Your task to perform on an android device: open app "Etsy: Buy & Sell Unique Items" Image 0: 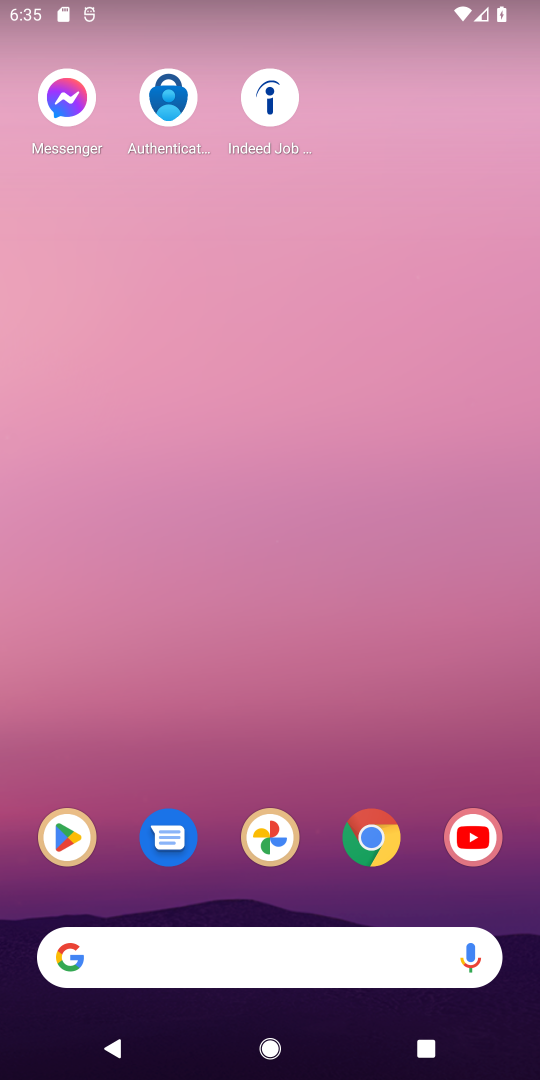
Step 0: click (67, 832)
Your task to perform on an android device: open app "Etsy: Buy & Sell Unique Items" Image 1: 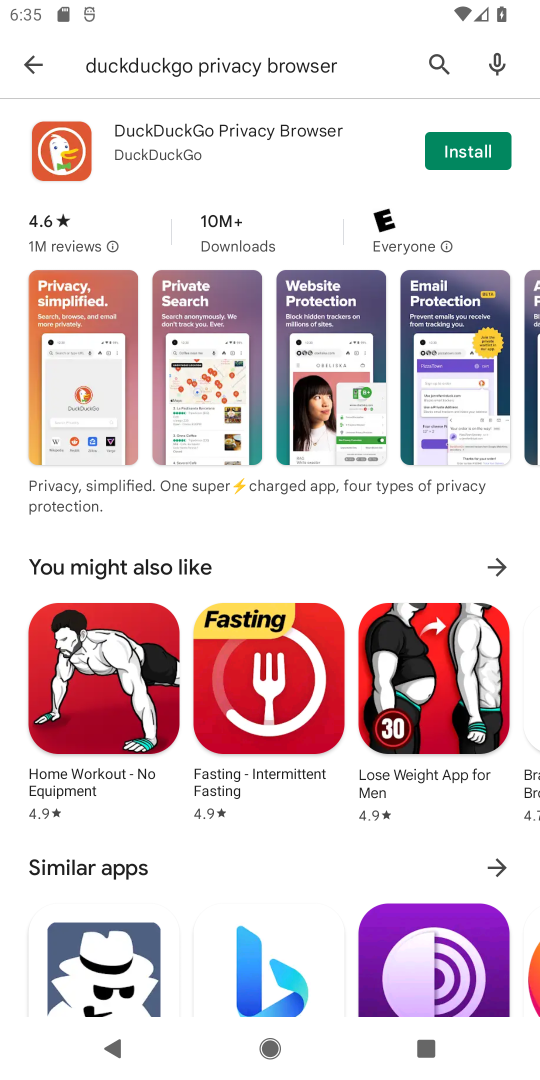
Step 1: click (432, 61)
Your task to perform on an android device: open app "Etsy: Buy & Sell Unique Items" Image 2: 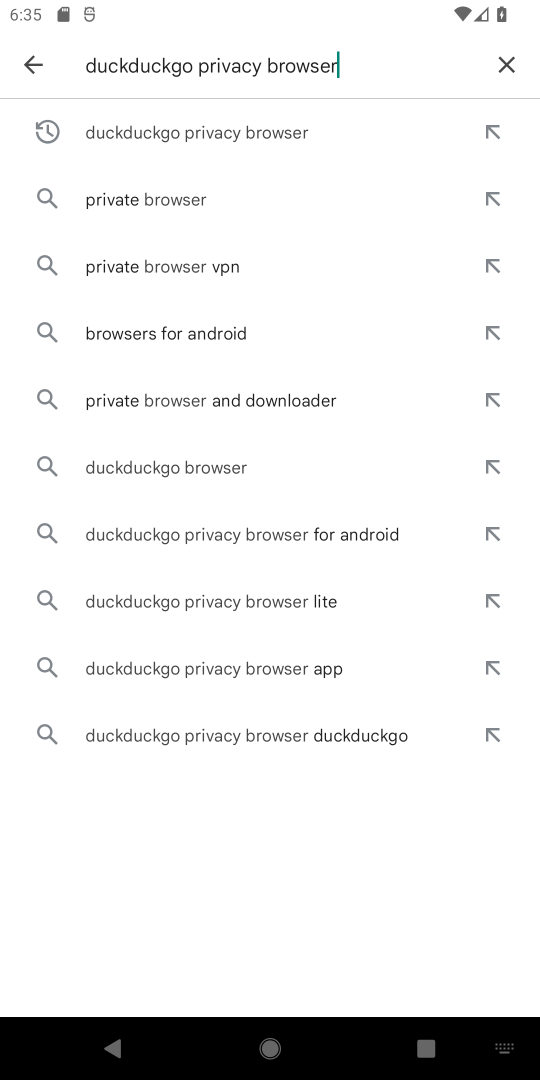
Step 2: click (505, 73)
Your task to perform on an android device: open app "Etsy: Buy & Sell Unique Items" Image 3: 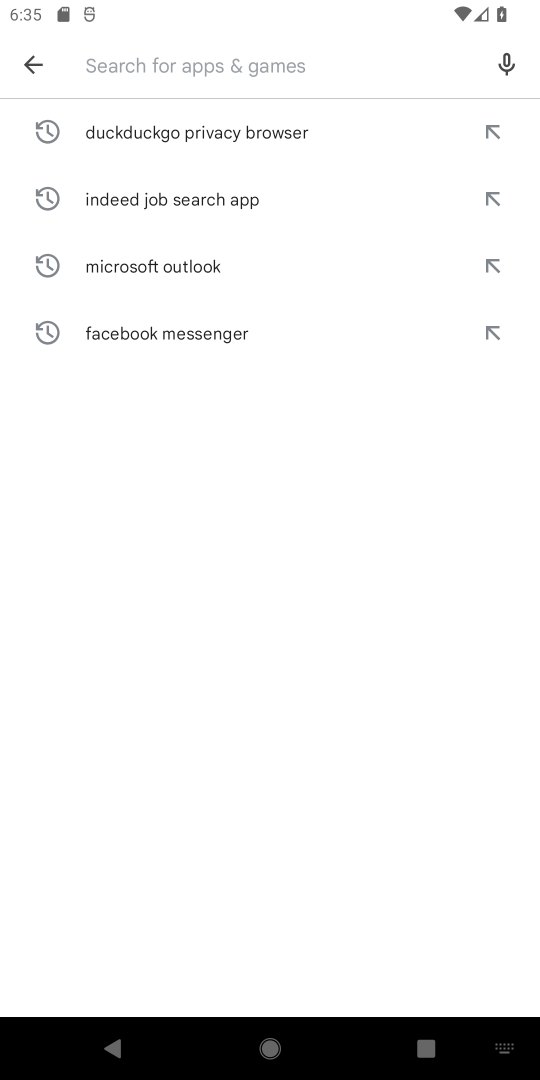
Step 3: type "Etsy: Buy & Sell Unique Items"
Your task to perform on an android device: open app "Etsy: Buy & Sell Unique Items" Image 4: 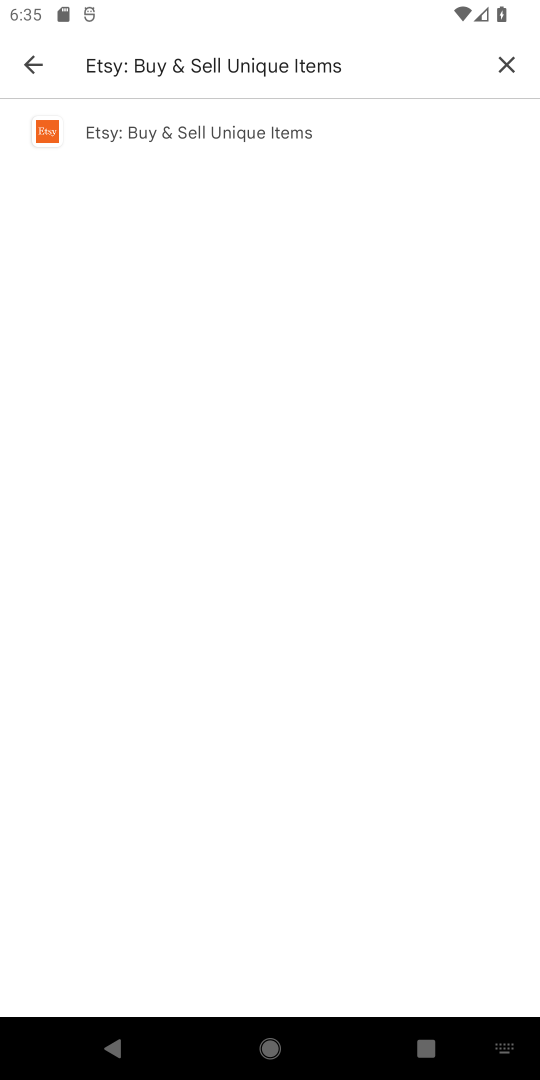
Step 4: click (170, 137)
Your task to perform on an android device: open app "Etsy: Buy & Sell Unique Items" Image 5: 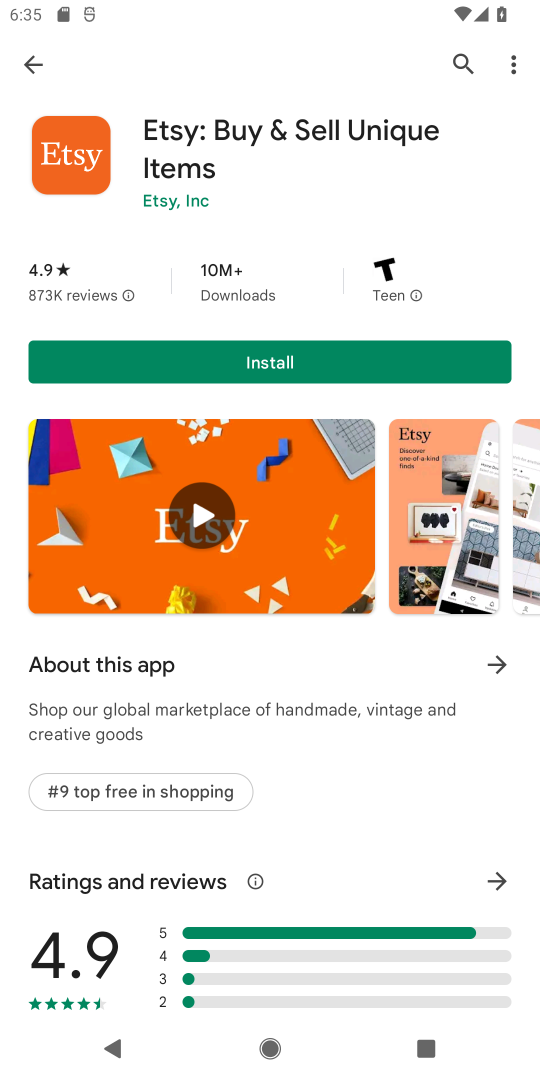
Step 5: task complete